Your task to perform on an android device: turn on showing notifications on the lock screen Image 0: 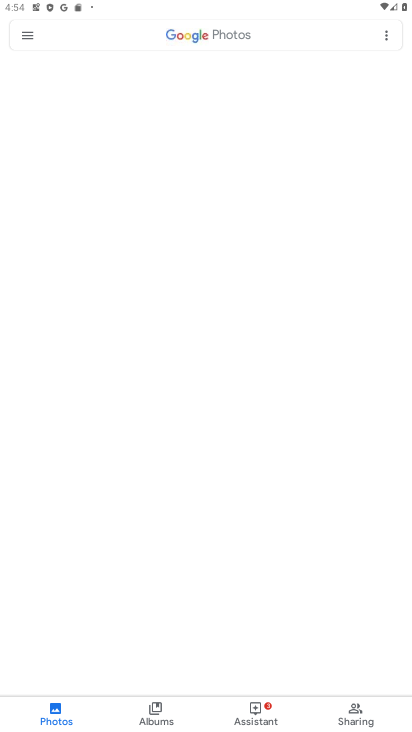
Step 0: press home button
Your task to perform on an android device: turn on showing notifications on the lock screen Image 1: 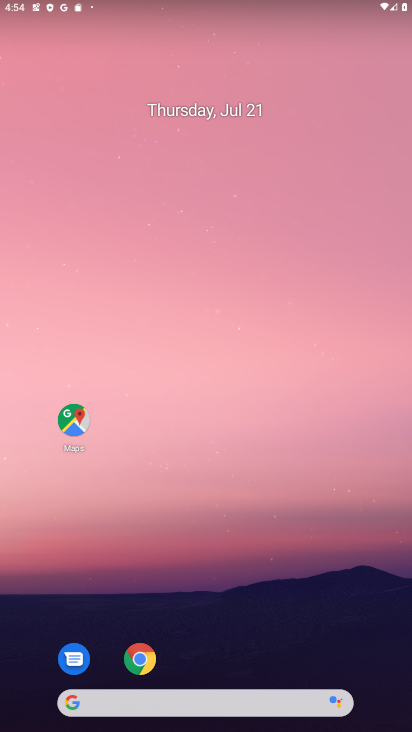
Step 1: drag from (241, 603) to (191, 134)
Your task to perform on an android device: turn on showing notifications on the lock screen Image 2: 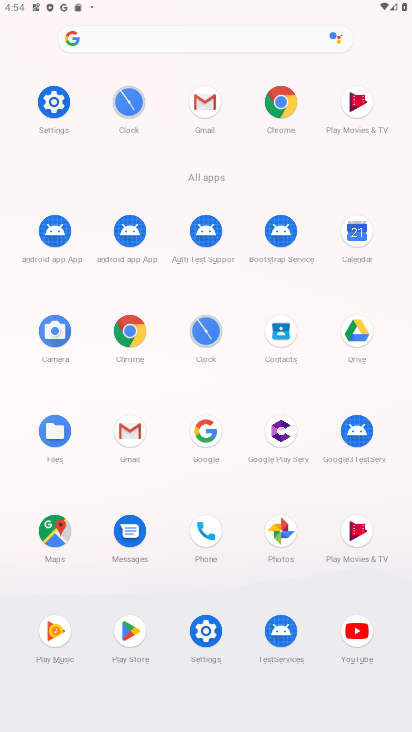
Step 2: click (49, 96)
Your task to perform on an android device: turn on showing notifications on the lock screen Image 3: 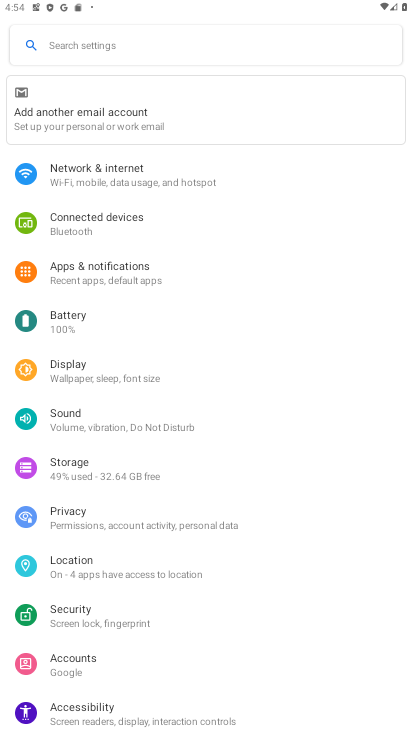
Step 3: click (102, 262)
Your task to perform on an android device: turn on showing notifications on the lock screen Image 4: 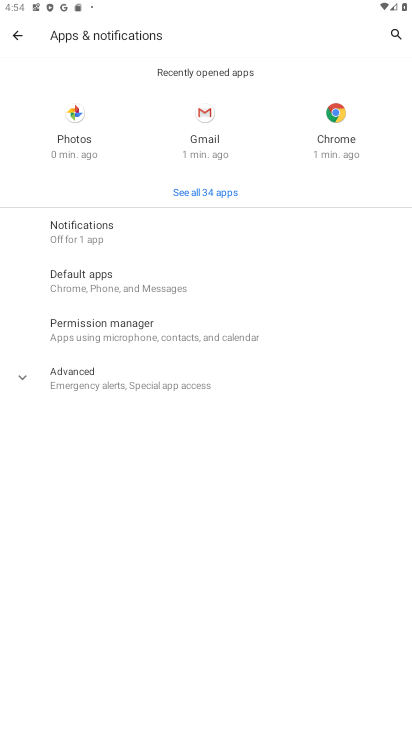
Step 4: click (37, 372)
Your task to perform on an android device: turn on showing notifications on the lock screen Image 5: 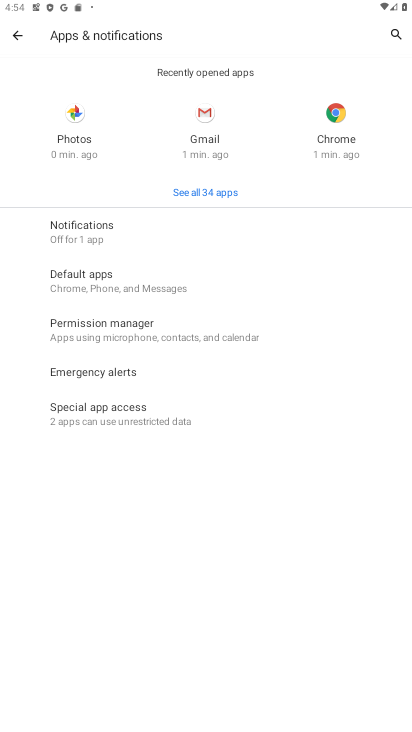
Step 5: click (86, 222)
Your task to perform on an android device: turn on showing notifications on the lock screen Image 6: 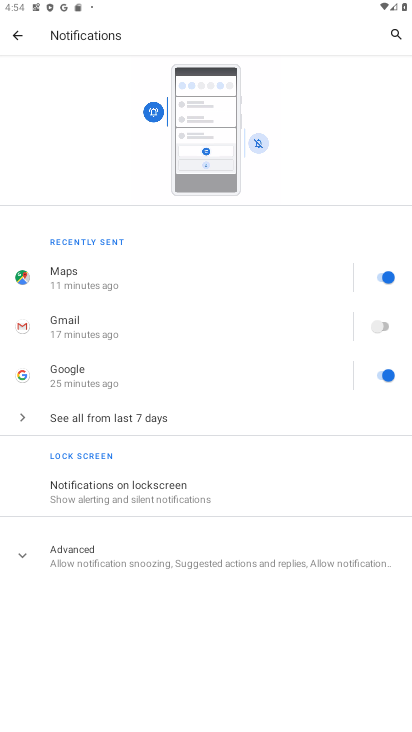
Step 6: click (168, 481)
Your task to perform on an android device: turn on showing notifications on the lock screen Image 7: 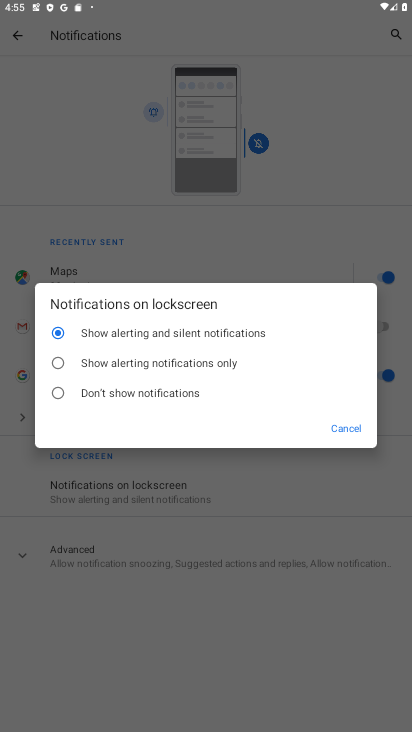
Step 7: task complete